Your task to perform on an android device: Show me productivity apps on the Play Store Image 0: 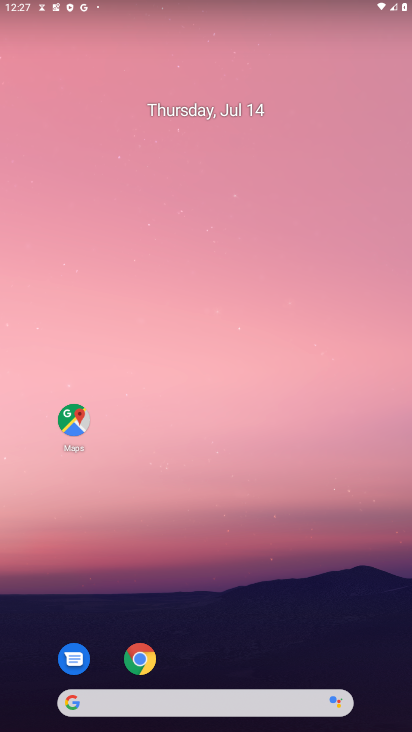
Step 0: drag from (159, 485) to (411, 257)
Your task to perform on an android device: Show me productivity apps on the Play Store Image 1: 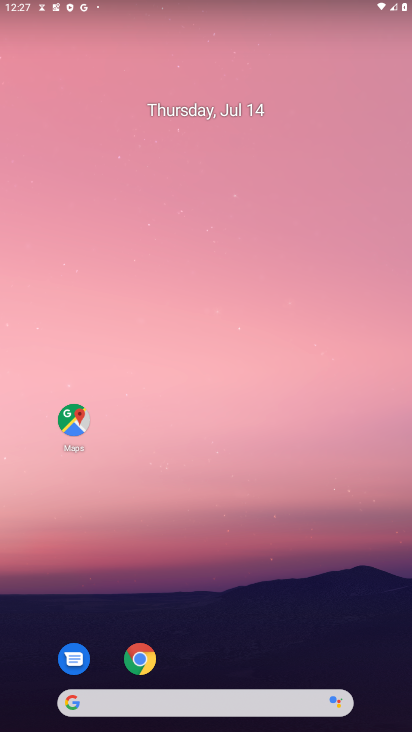
Step 1: drag from (93, 560) to (253, 251)
Your task to perform on an android device: Show me productivity apps on the Play Store Image 2: 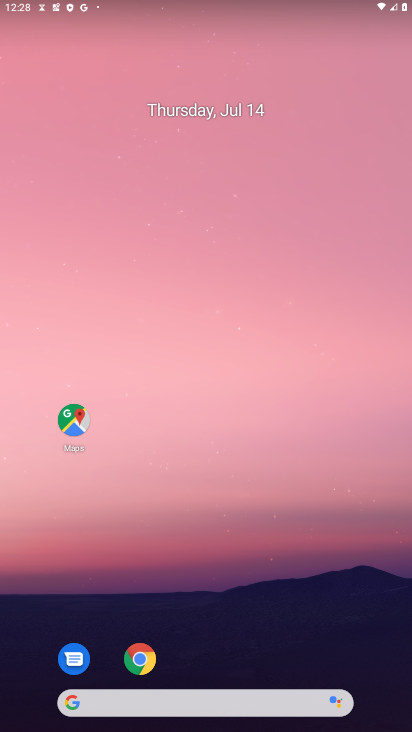
Step 2: drag from (62, 627) to (258, 272)
Your task to perform on an android device: Show me productivity apps on the Play Store Image 3: 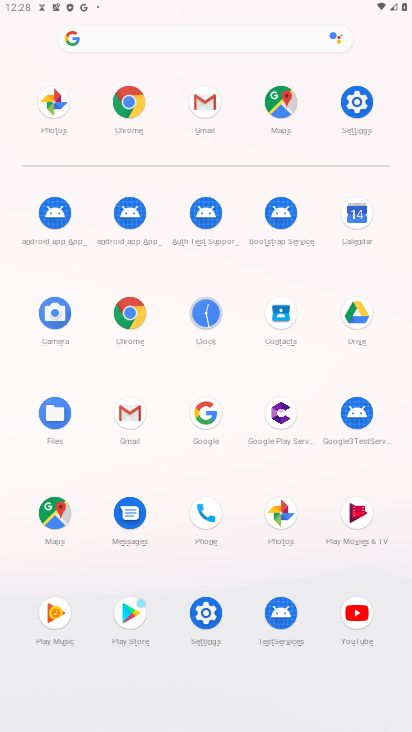
Step 3: click (127, 625)
Your task to perform on an android device: Show me productivity apps on the Play Store Image 4: 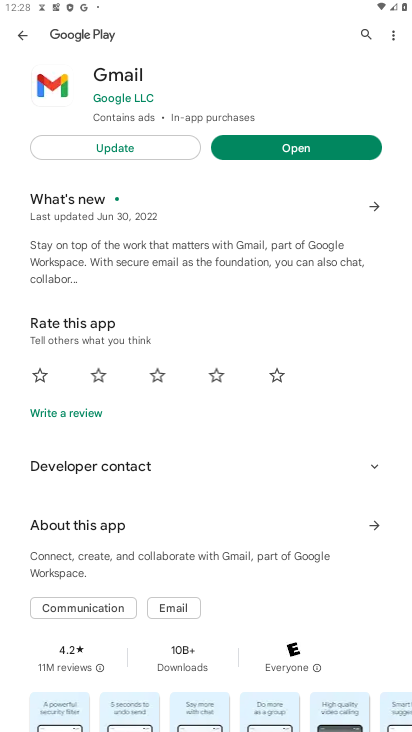
Step 4: click (24, 36)
Your task to perform on an android device: Show me productivity apps on the Play Store Image 5: 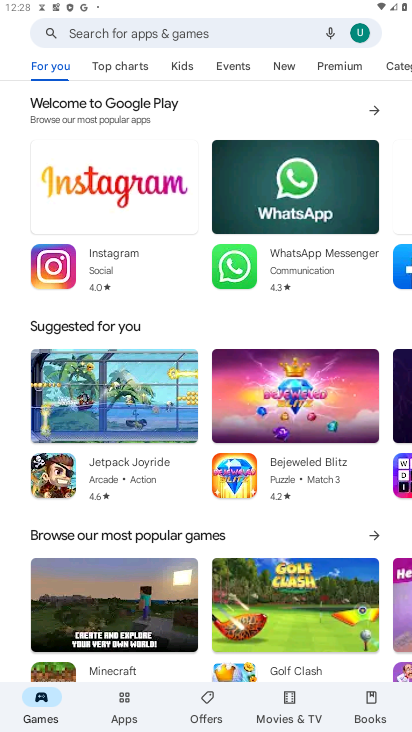
Step 5: click (109, 37)
Your task to perform on an android device: Show me productivity apps on the Play Store Image 6: 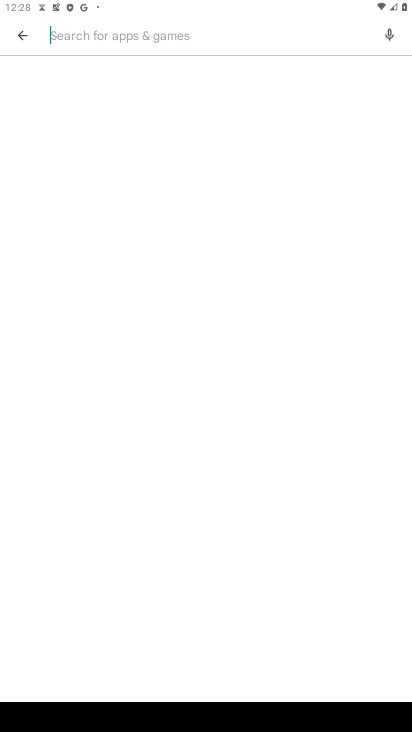
Step 6: type "productivity apps"
Your task to perform on an android device: Show me productivity apps on the Play Store Image 7: 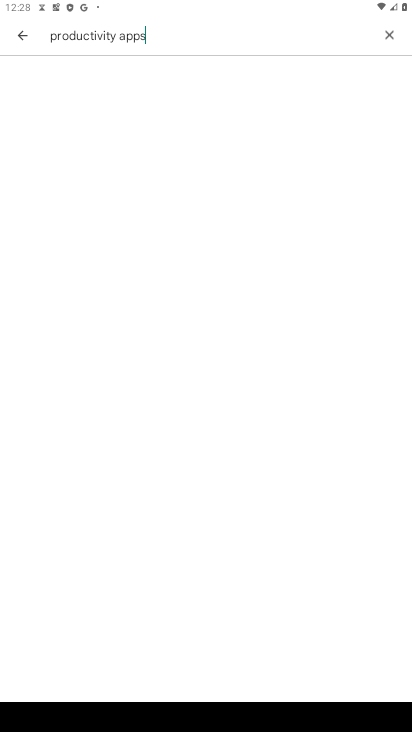
Step 7: type ""
Your task to perform on an android device: Show me productivity apps on the Play Store Image 8: 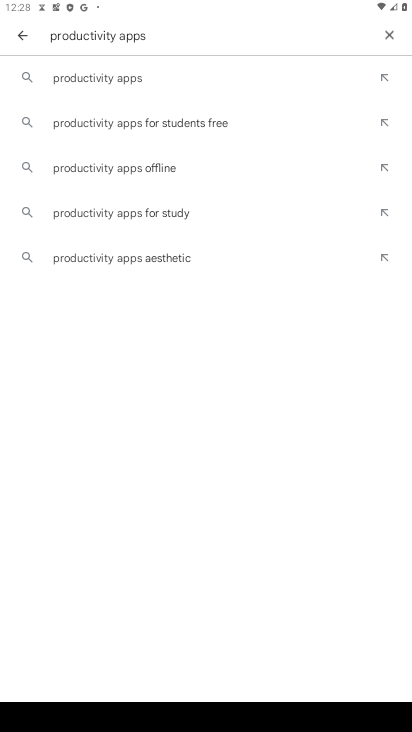
Step 8: click (84, 74)
Your task to perform on an android device: Show me productivity apps on the Play Store Image 9: 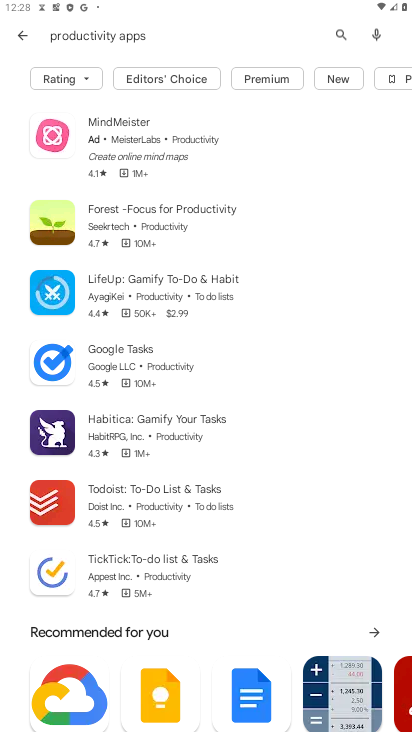
Step 9: task complete